Your task to perform on an android device: clear history in the chrome app Image 0: 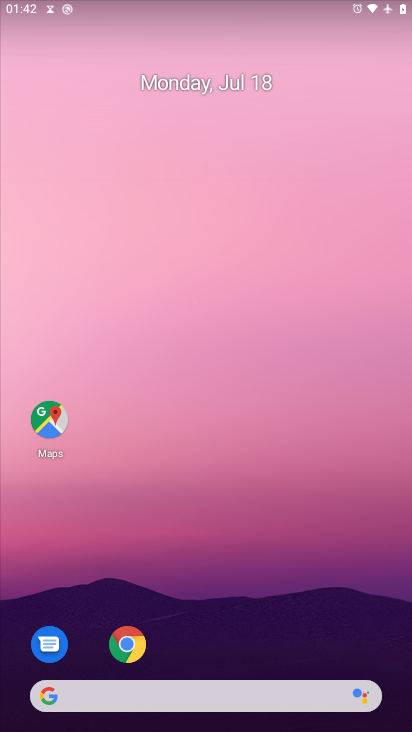
Step 0: press home button
Your task to perform on an android device: clear history in the chrome app Image 1: 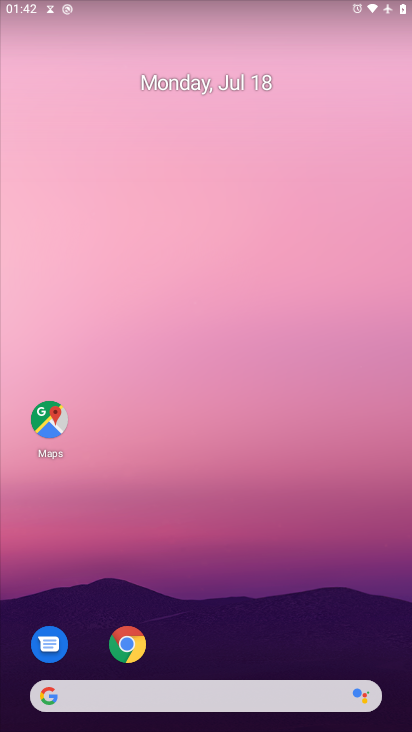
Step 1: drag from (284, 620) to (204, 229)
Your task to perform on an android device: clear history in the chrome app Image 2: 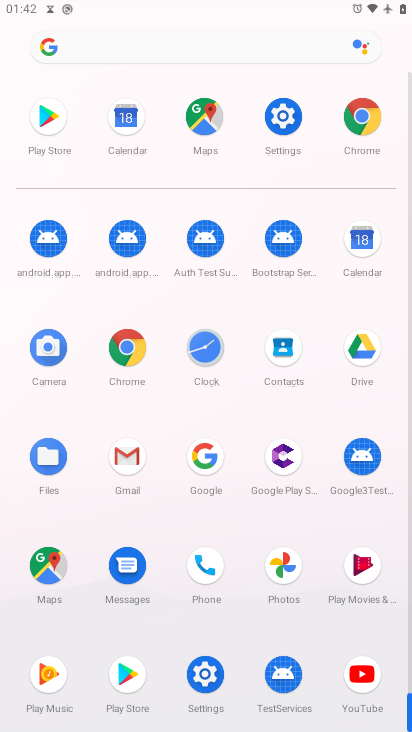
Step 2: click (130, 343)
Your task to perform on an android device: clear history in the chrome app Image 3: 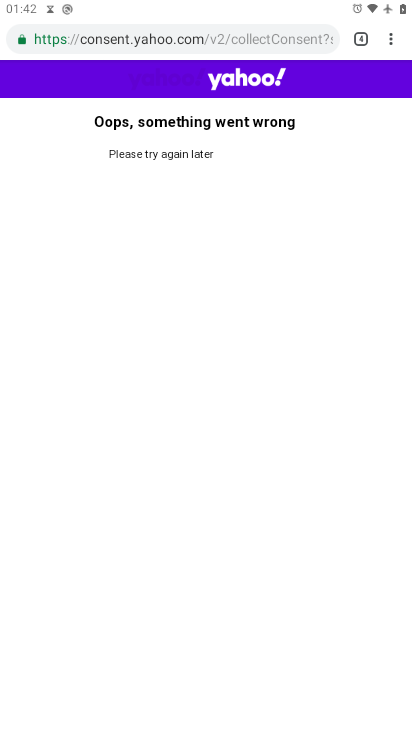
Step 3: drag from (391, 44) to (231, 221)
Your task to perform on an android device: clear history in the chrome app Image 4: 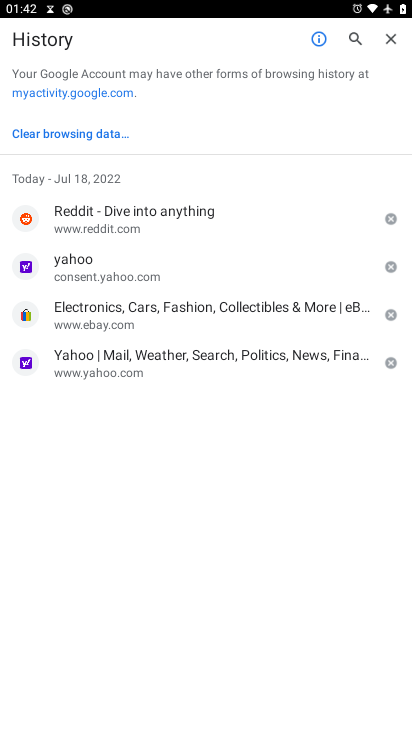
Step 4: click (34, 136)
Your task to perform on an android device: clear history in the chrome app Image 5: 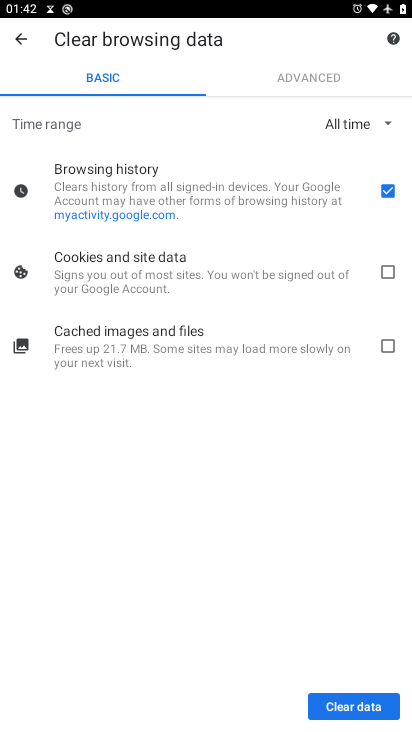
Step 5: click (393, 285)
Your task to perform on an android device: clear history in the chrome app Image 6: 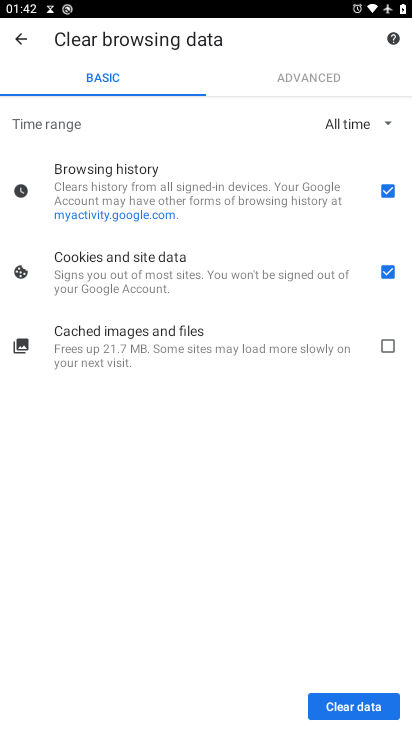
Step 6: click (385, 344)
Your task to perform on an android device: clear history in the chrome app Image 7: 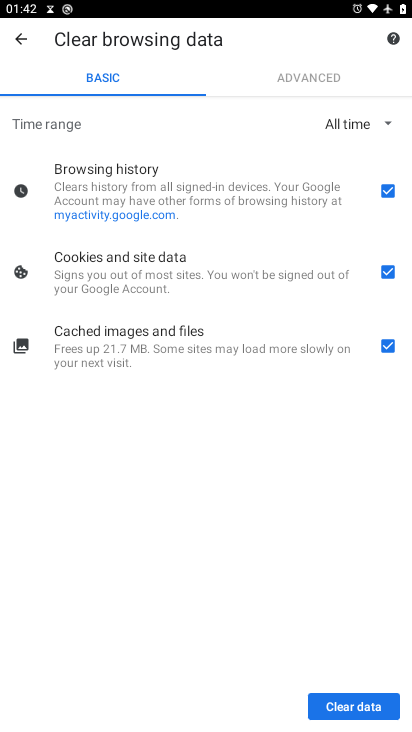
Step 7: click (359, 705)
Your task to perform on an android device: clear history in the chrome app Image 8: 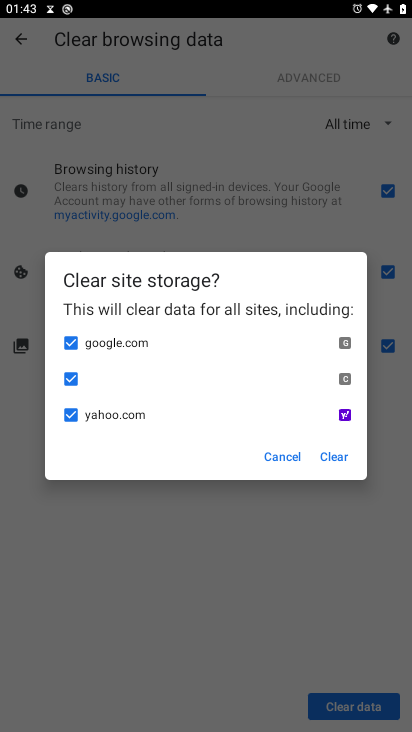
Step 8: click (334, 460)
Your task to perform on an android device: clear history in the chrome app Image 9: 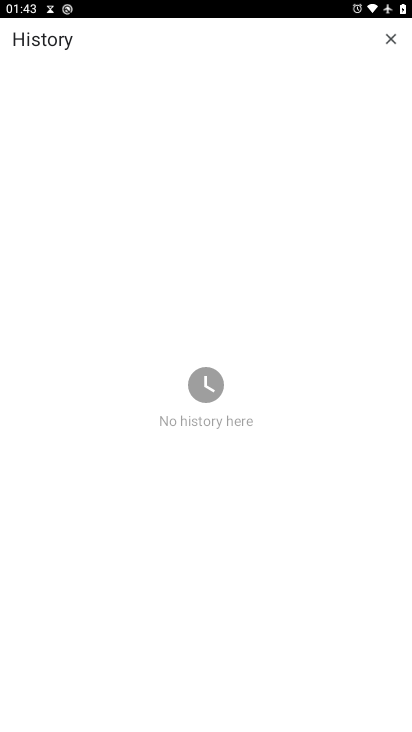
Step 9: task complete